Your task to perform on an android device: turn off data saver in the chrome app Image 0: 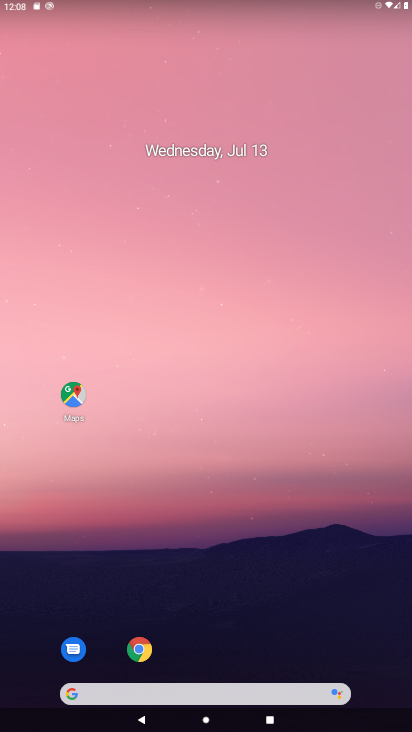
Step 0: click (138, 647)
Your task to perform on an android device: turn off data saver in the chrome app Image 1: 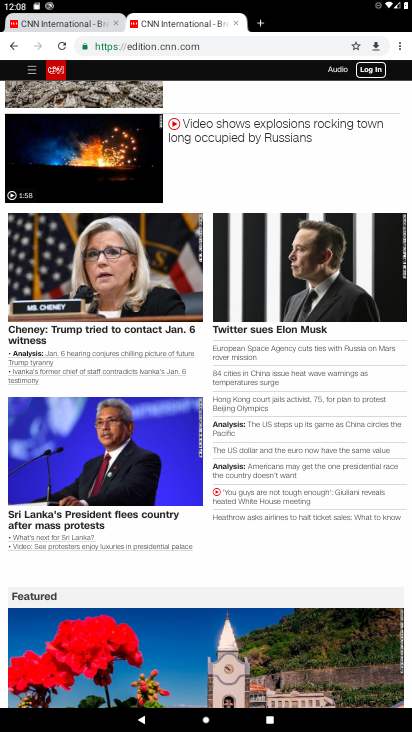
Step 1: click (398, 49)
Your task to perform on an android device: turn off data saver in the chrome app Image 2: 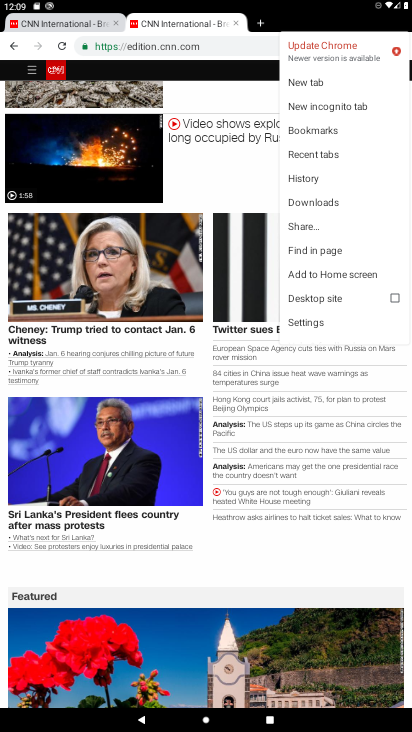
Step 2: click (311, 322)
Your task to perform on an android device: turn off data saver in the chrome app Image 3: 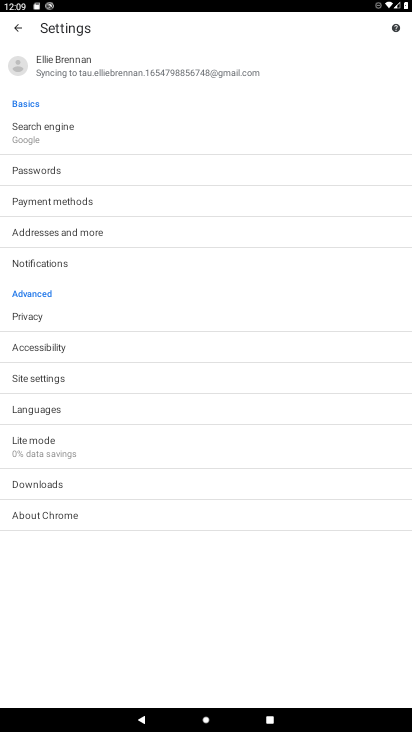
Step 3: click (34, 441)
Your task to perform on an android device: turn off data saver in the chrome app Image 4: 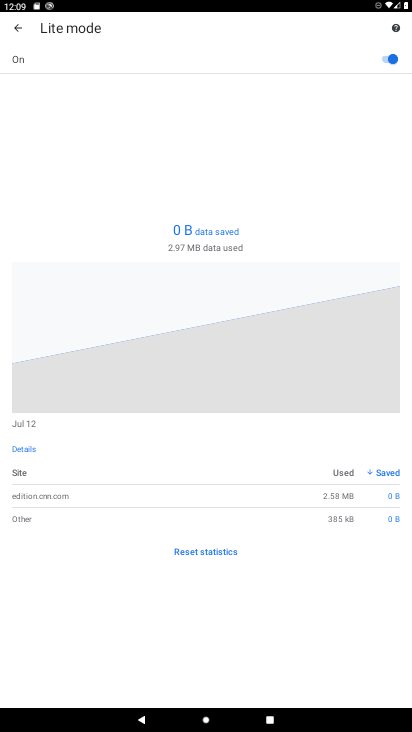
Step 4: click (382, 58)
Your task to perform on an android device: turn off data saver in the chrome app Image 5: 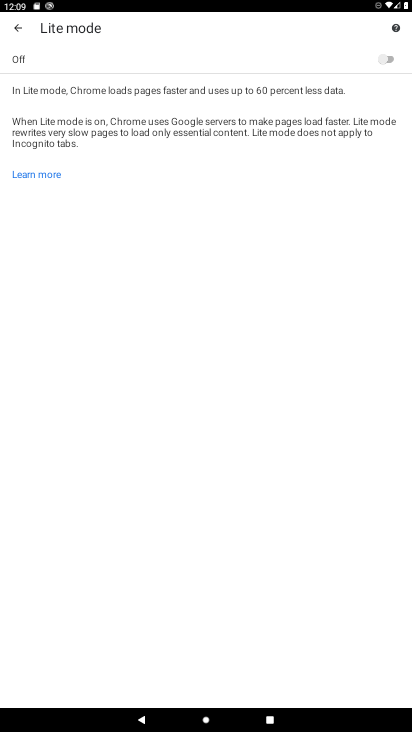
Step 5: task complete